Your task to perform on an android device: Search for Mexican restaurants on Maps Image 0: 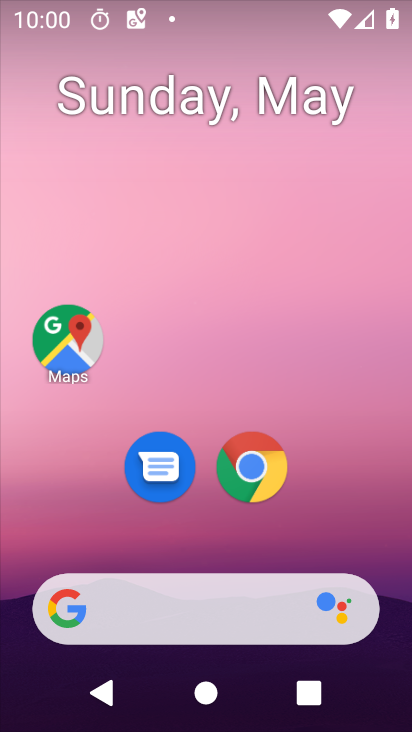
Step 0: click (84, 348)
Your task to perform on an android device: Search for Mexican restaurants on Maps Image 1: 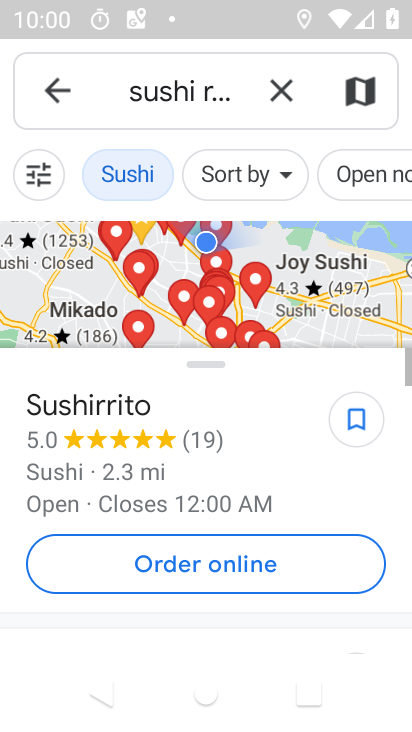
Step 1: click (272, 79)
Your task to perform on an android device: Search for Mexican restaurants on Maps Image 2: 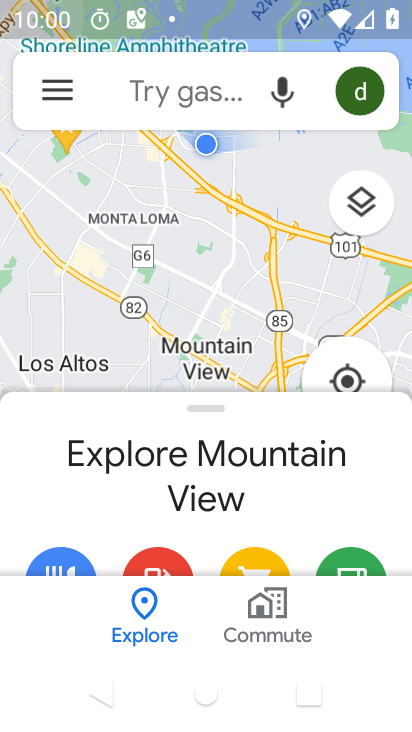
Step 2: click (206, 88)
Your task to perform on an android device: Search for Mexican restaurants on Maps Image 3: 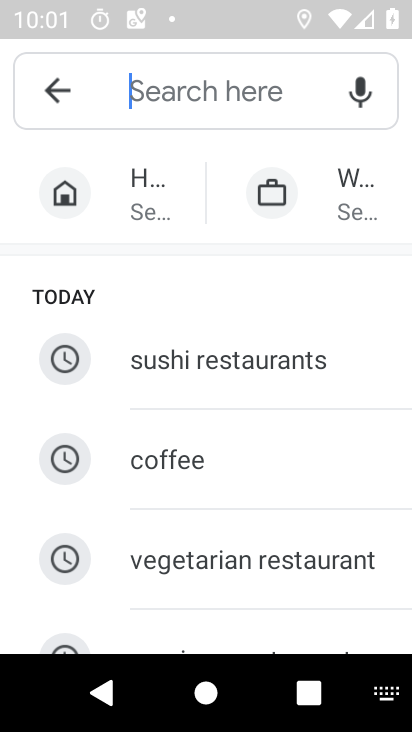
Step 3: type "Mexican restaurants"
Your task to perform on an android device: Search for Mexican restaurants on Maps Image 4: 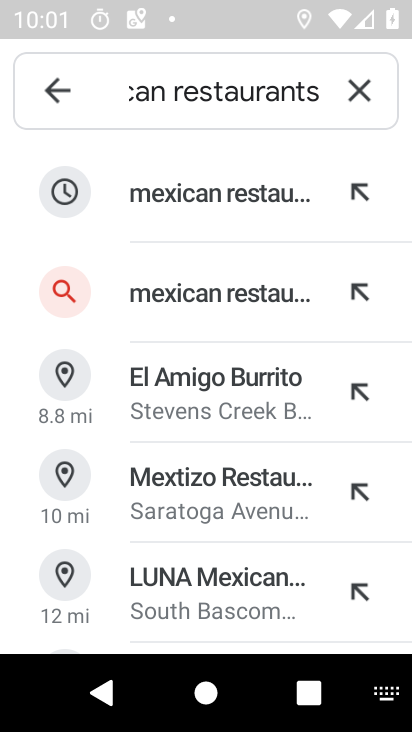
Step 4: click (224, 193)
Your task to perform on an android device: Search for Mexican restaurants on Maps Image 5: 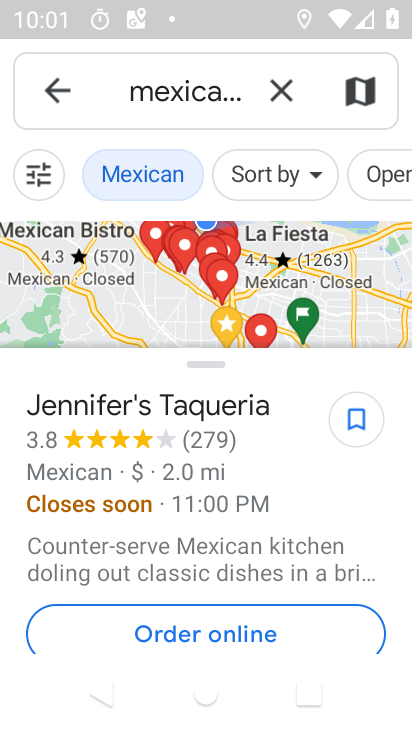
Step 5: task complete